Your task to perform on an android device: turn off notifications settings in the gmail app Image 0: 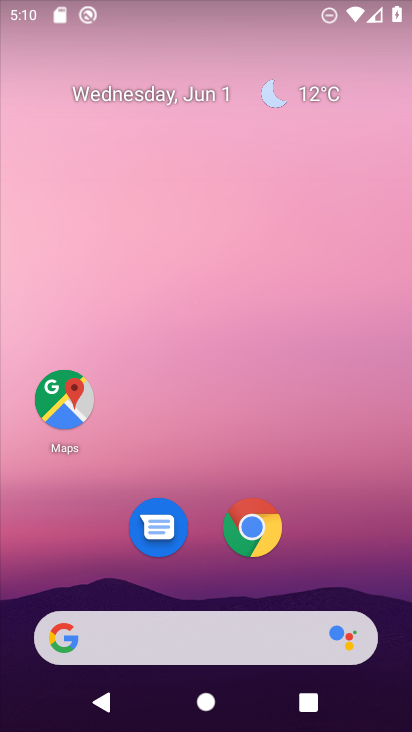
Step 0: drag from (200, 588) to (262, 105)
Your task to perform on an android device: turn off notifications settings in the gmail app Image 1: 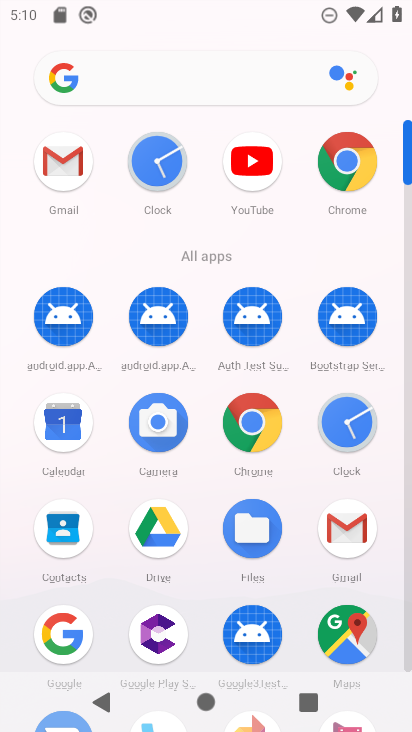
Step 1: click (344, 508)
Your task to perform on an android device: turn off notifications settings in the gmail app Image 2: 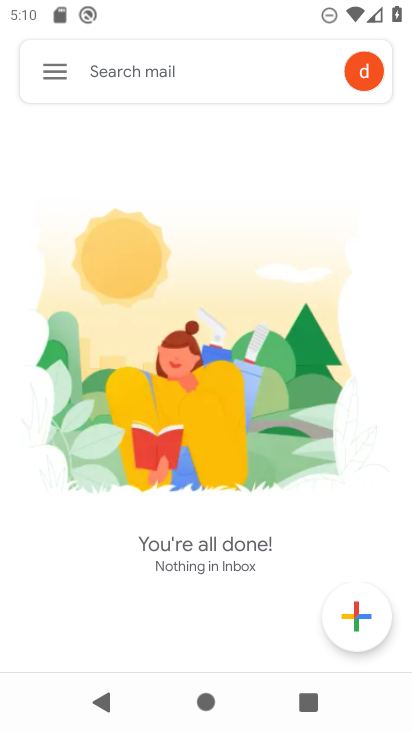
Step 2: click (60, 76)
Your task to perform on an android device: turn off notifications settings in the gmail app Image 3: 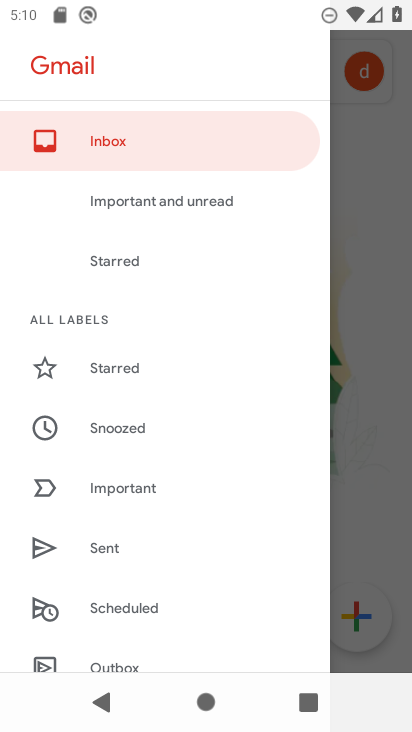
Step 3: drag from (119, 570) to (233, 86)
Your task to perform on an android device: turn off notifications settings in the gmail app Image 4: 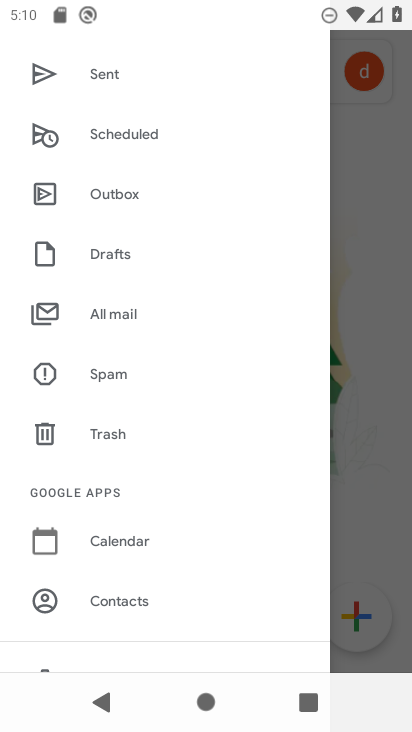
Step 4: drag from (61, 615) to (219, 18)
Your task to perform on an android device: turn off notifications settings in the gmail app Image 5: 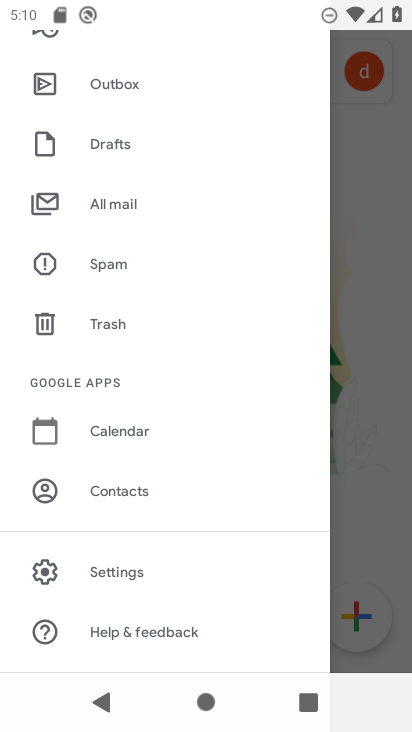
Step 5: click (71, 578)
Your task to perform on an android device: turn off notifications settings in the gmail app Image 6: 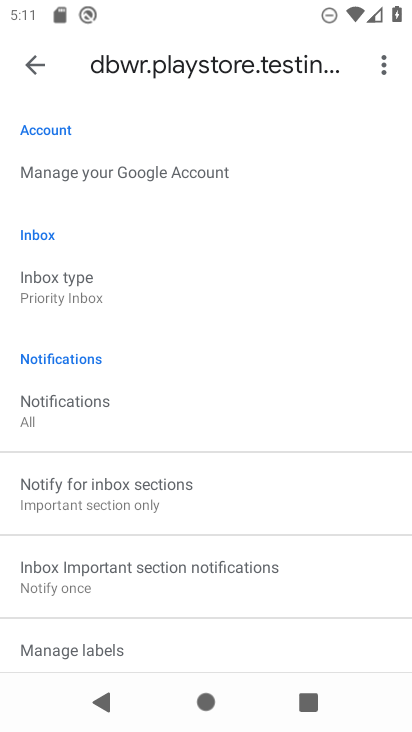
Step 6: click (69, 381)
Your task to perform on an android device: turn off notifications settings in the gmail app Image 7: 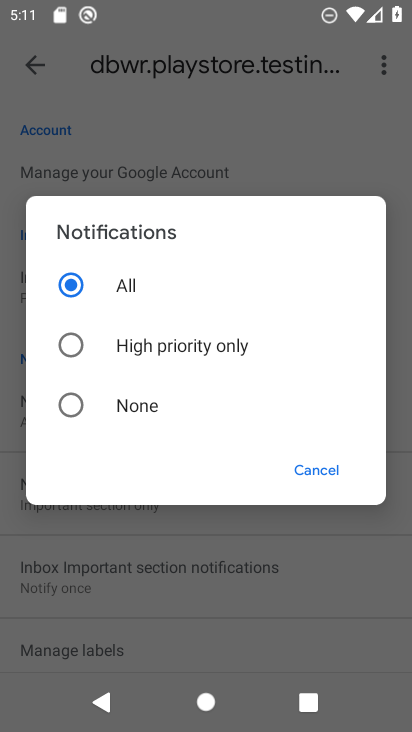
Step 7: click (74, 403)
Your task to perform on an android device: turn off notifications settings in the gmail app Image 8: 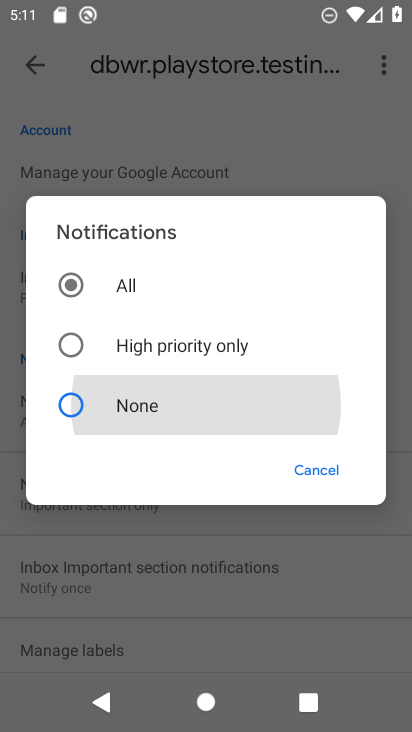
Step 8: click (74, 403)
Your task to perform on an android device: turn off notifications settings in the gmail app Image 9: 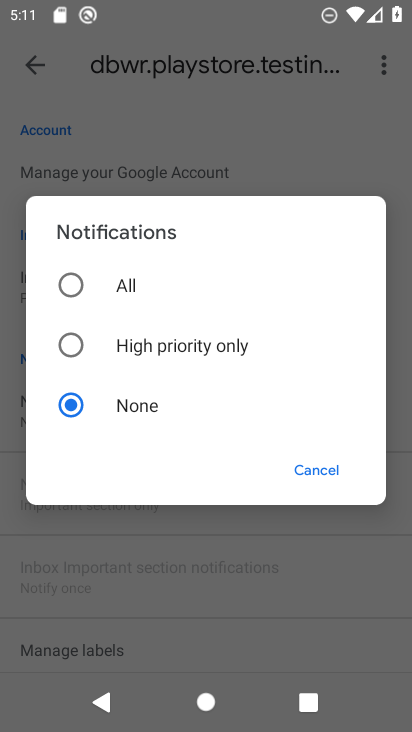
Step 9: task complete